Your task to perform on an android device: Open the stopwatch Image 0: 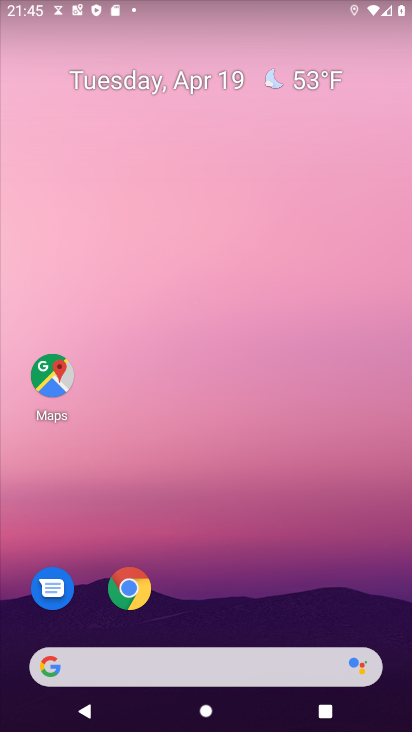
Step 0: drag from (222, 614) to (297, 97)
Your task to perform on an android device: Open the stopwatch Image 1: 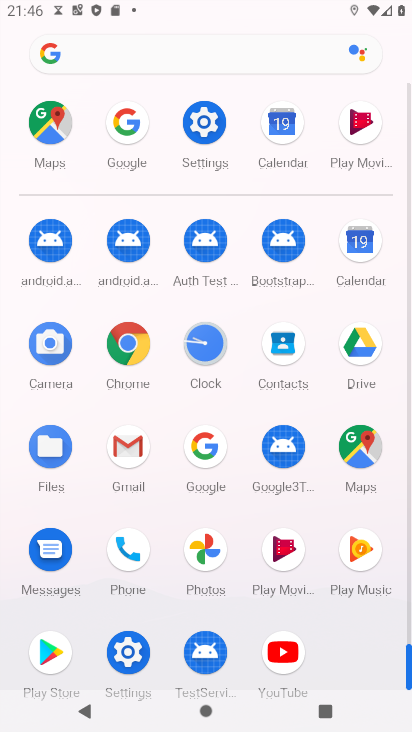
Step 1: click (209, 342)
Your task to perform on an android device: Open the stopwatch Image 2: 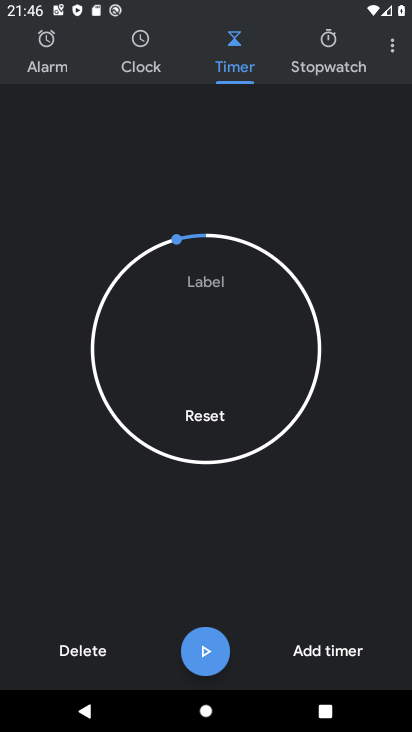
Step 2: click (328, 50)
Your task to perform on an android device: Open the stopwatch Image 3: 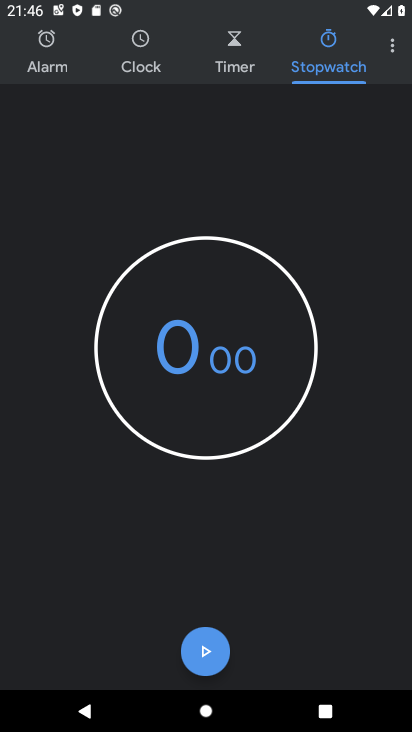
Step 3: task complete